Your task to perform on an android device: star an email in the gmail app Image 0: 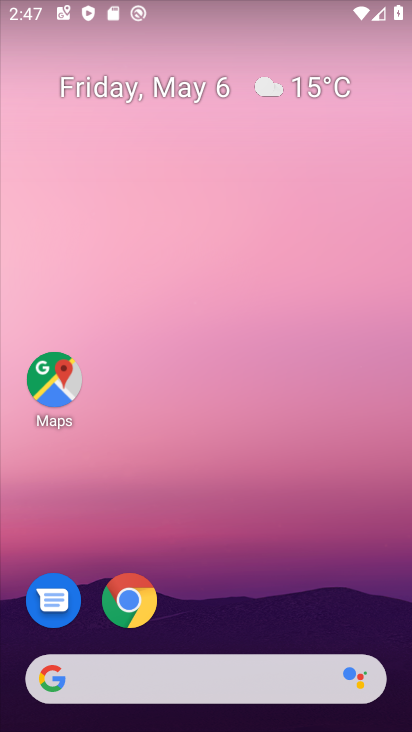
Step 0: drag from (249, 577) to (233, 48)
Your task to perform on an android device: star an email in the gmail app Image 1: 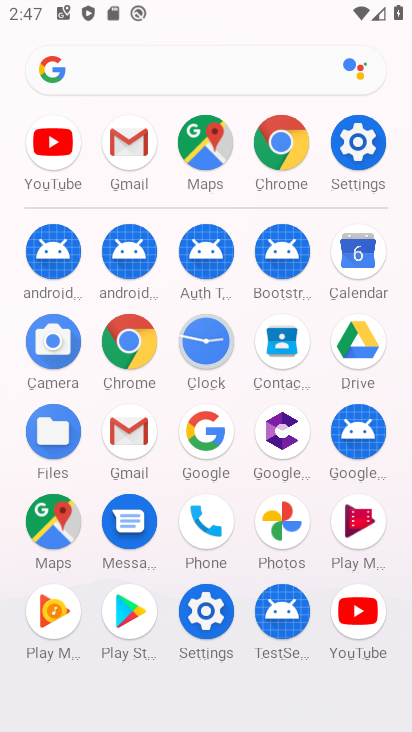
Step 1: drag from (6, 581) to (0, 223)
Your task to perform on an android device: star an email in the gmail app Image 2: 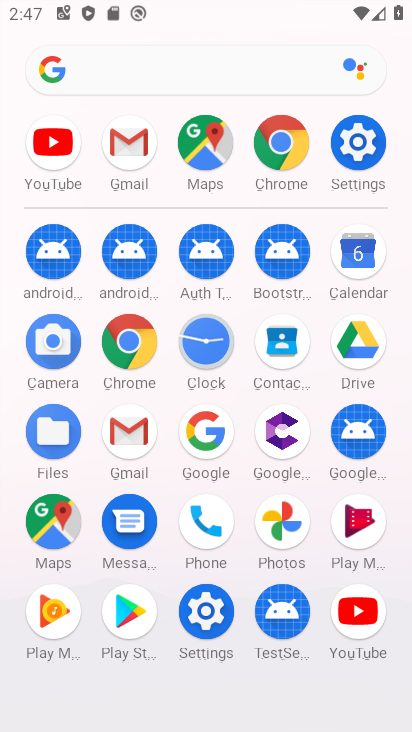
Step 2: click (129, 429)
Your task to perform on an android device: star an email in the gmail app Image 3: 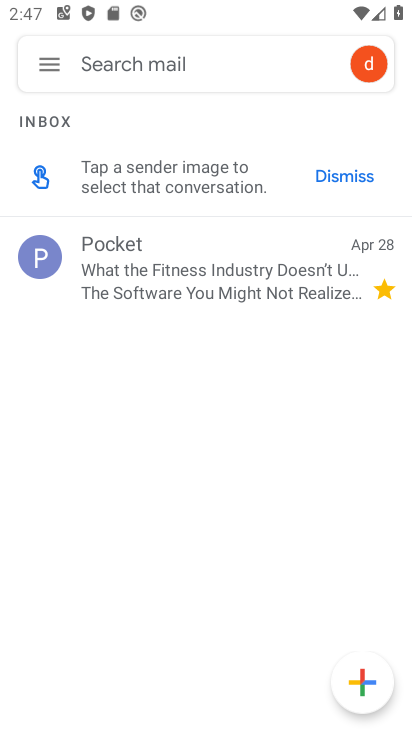
Step 3: click (44, 68)
Your task to perform on an android device: star an email in the gmail app Image 4: 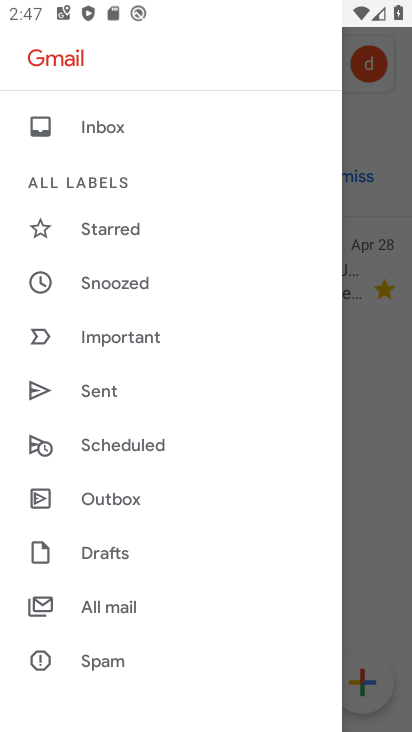
Step 4: drag from (213, 593) to (221, 116)
Your task to perform on an android device: star an email in the gmail app Image 5: 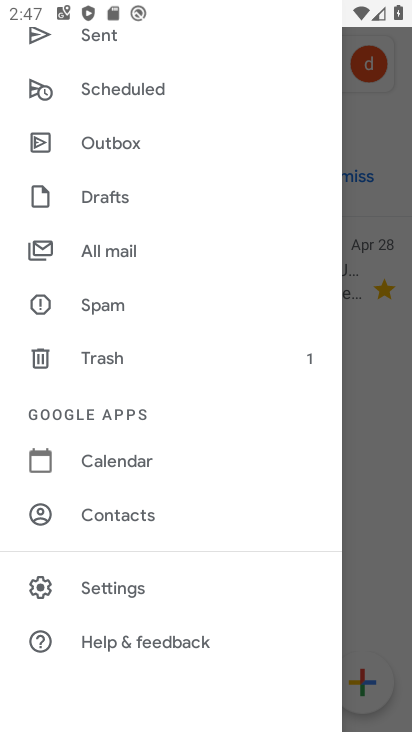
Step 5: drag from (176, 133) to (173, 562)
Your task to perform on an android device: star an email in the gmail app Image 6: 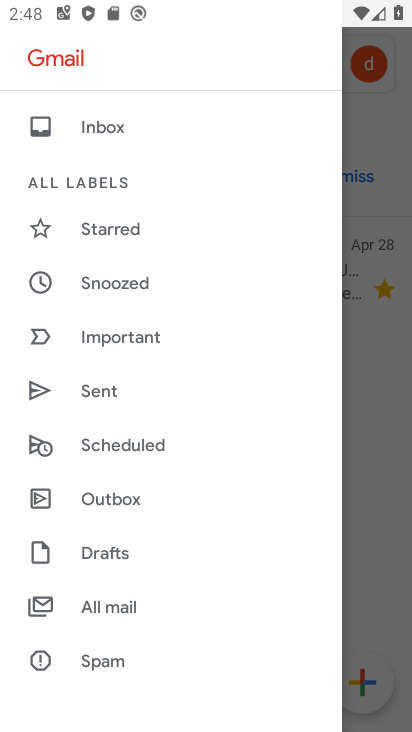
Step 6: click (383, 388)
Your task to perform on an android device: star an email in the gmail app Image 7: 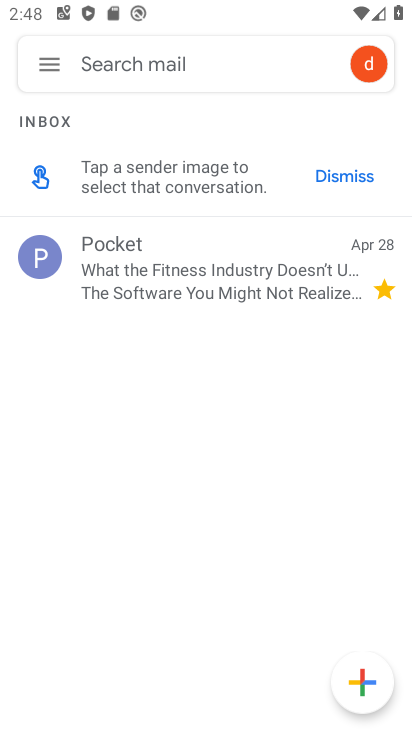
Step 7: click (47, 53)
Your task to perform on an android device: star an email in the gmail app Image 8: 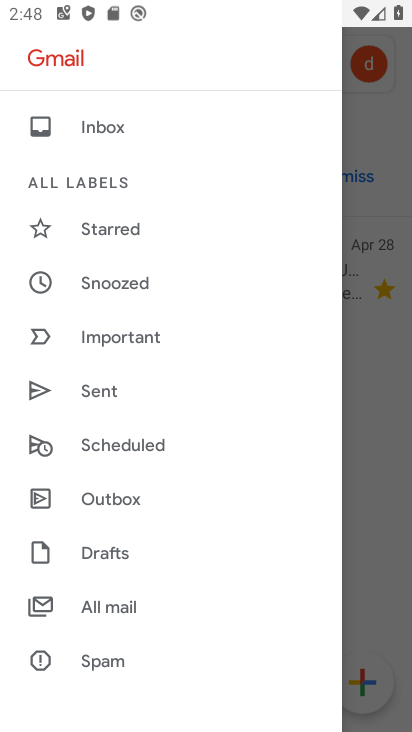
Step 8: click (95, 124)
Your task to perform on an android device: star an email in the gmail app Image 9: 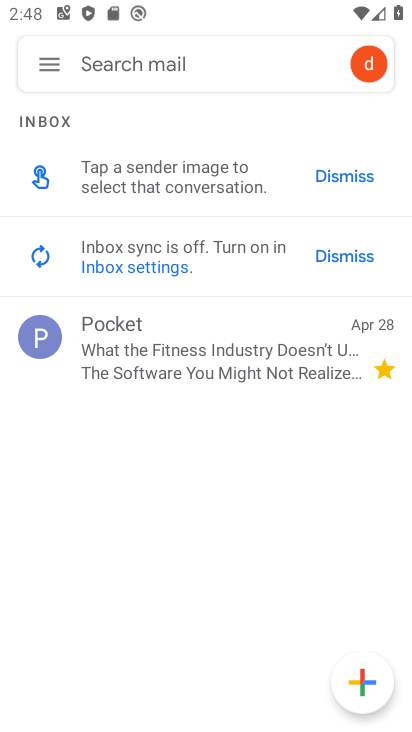
Step 9: click (23, 46)
Your task to perform on an android device: star an email in the gmail app Image 10: 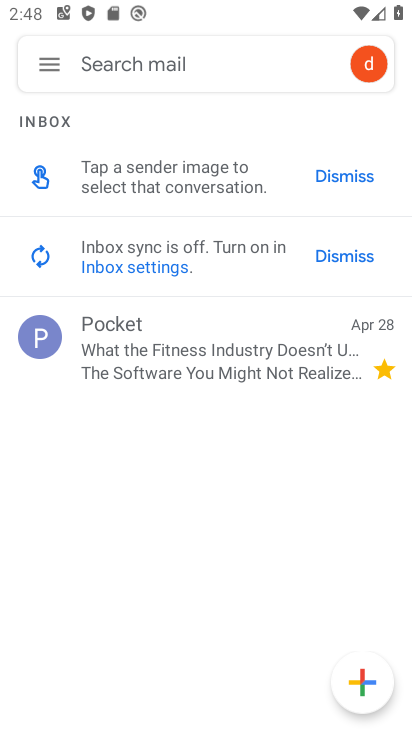
Step 10: click (56, 64)
Your task to perform on an android device: star an email in the gmail app Image 11: 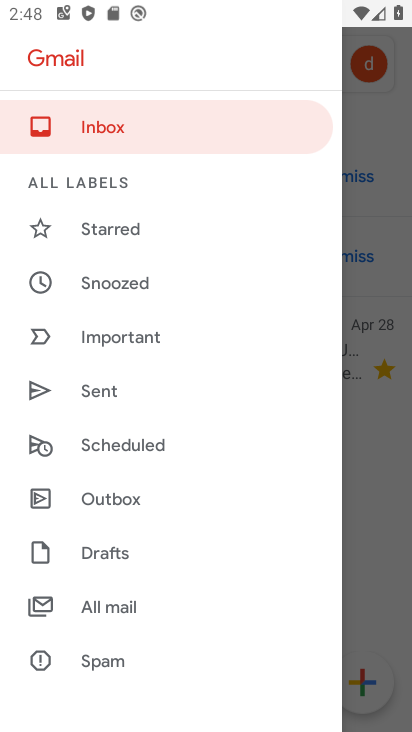
Step 11: click (146, 606)
Your task to perform on an android device: star an email in the gmail app Image 12: 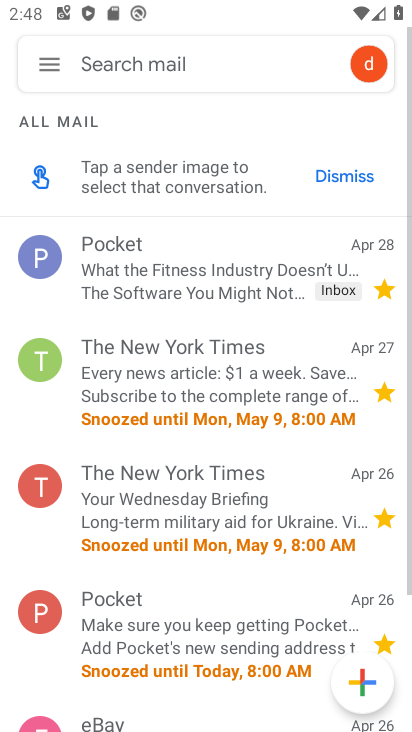
Step 12: drag from (204, 606) to (210, 196)
Your task to perform on an android device: star an email in the gmail app Image 13: 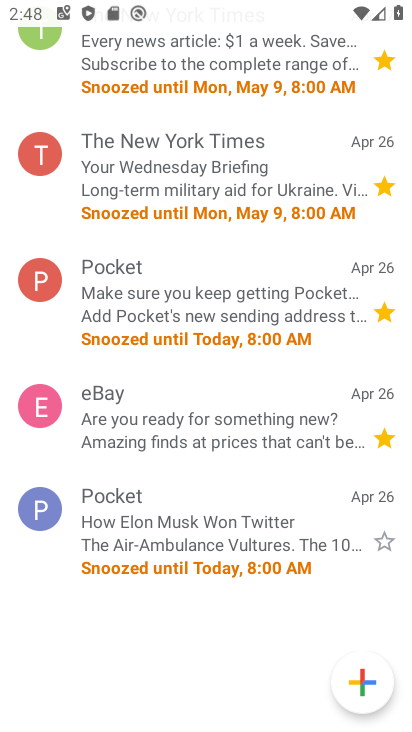
Step 13: click (233, 514)
Your task to perform on an android device: star an email in the gmail app Image 14: 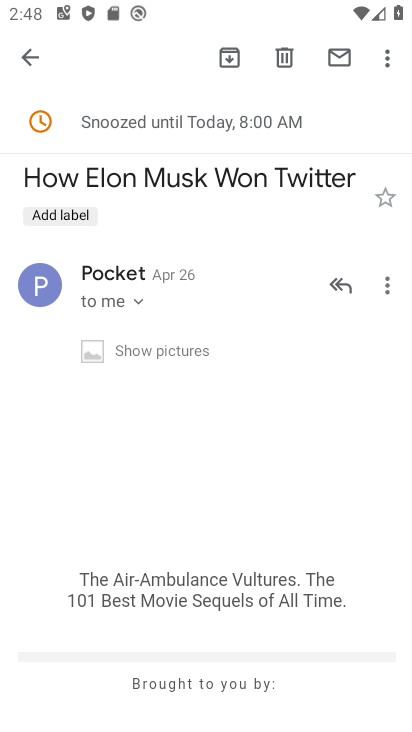
Step 14: click (77, 217)
Your task to perform on an android device: star an email in the gmail app Image 15: 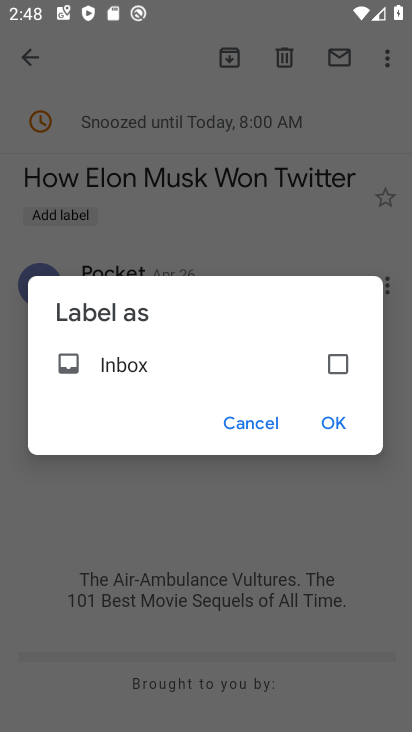
Step 15: click (337, 357)
Your task to perform on an android device: star an email in the gmail app Image 16: 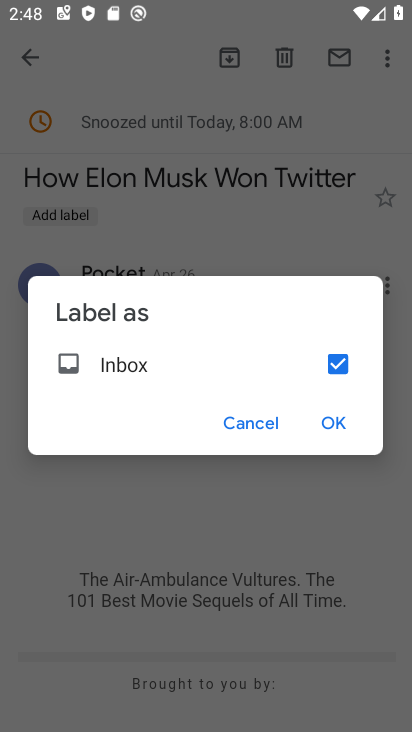
Step 16: click (338, 414)
Your task to perform on an android device: star an email in the gmail app Image 17: 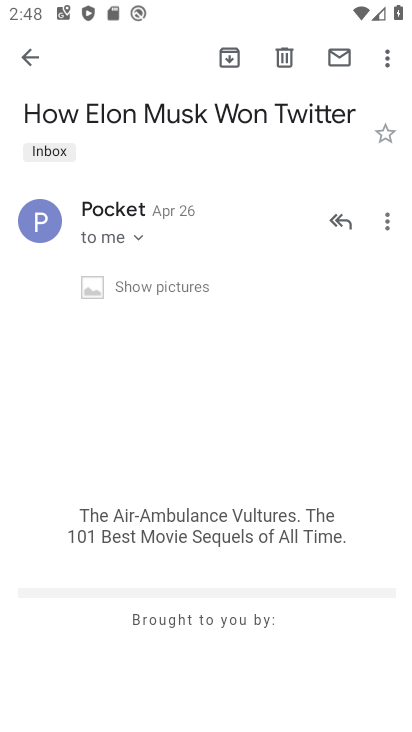
Step 17: task complete